Your task to perform on an android device: install app "Paramount+ | Peak Streaming" Image 0: 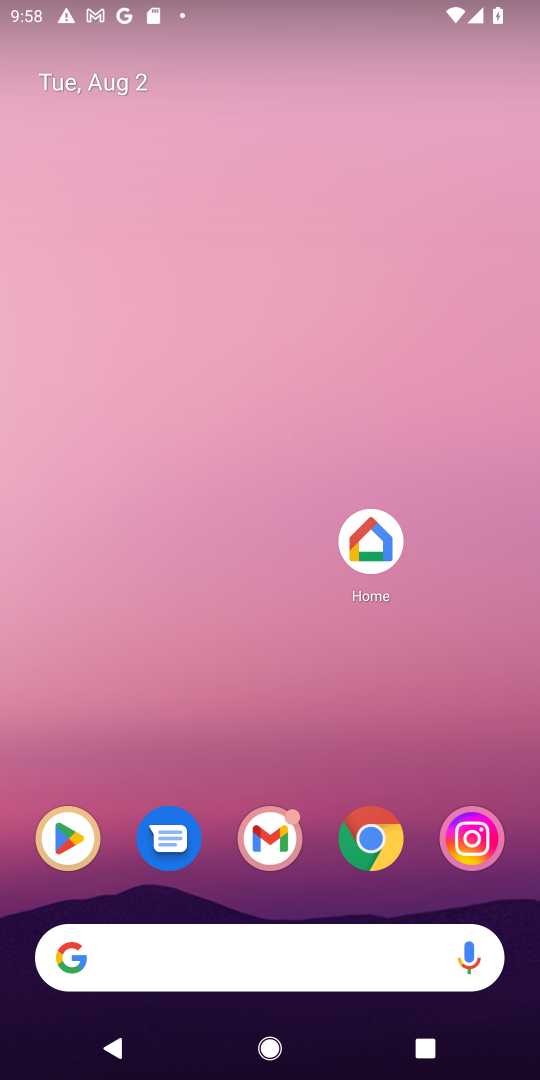
Step 0: press home button
Your task to perform on an android device: install app "Paramount+ | Peak Streaming" Image 1: 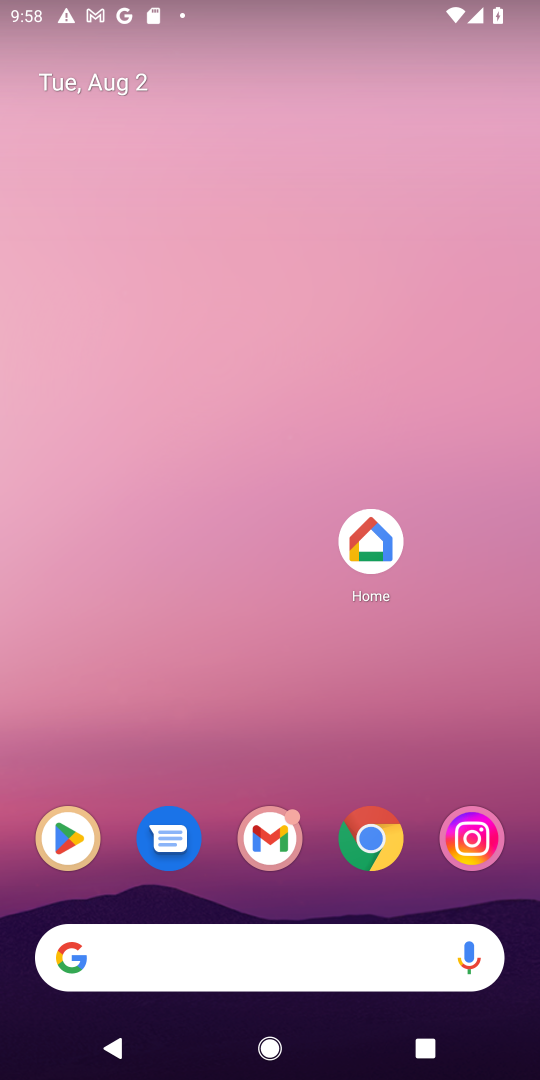
Step 1: drag from (219, 657) to (257, 42)
Your task to perform on an android device: install app "Paramount+ | Peak Streaming" Image 2: 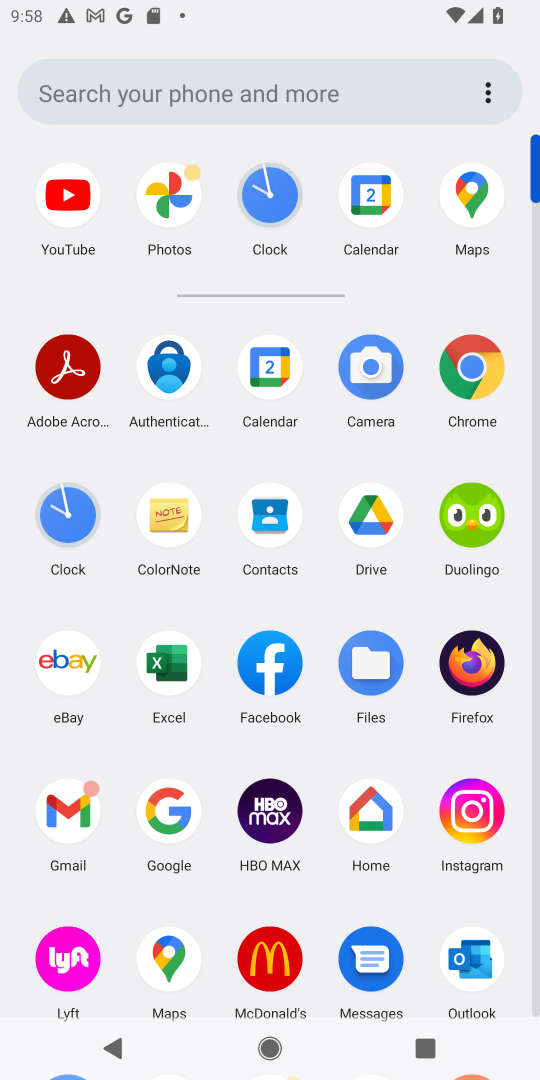
Step 2: drag from (315, 894) to (317, 375)
Your task to perform on an android device: install app "Paramount+ | Peak Streaming" Image 3: 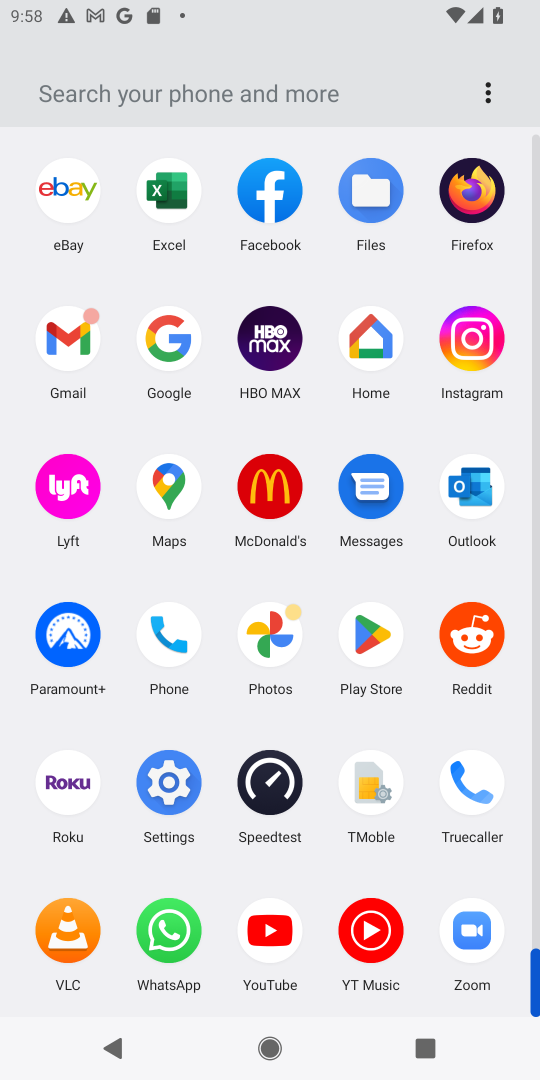
Step 3: click (383, 634)
Your task to perform on an android device: install app "Paramount+ | Peak Streaming" Image 4: 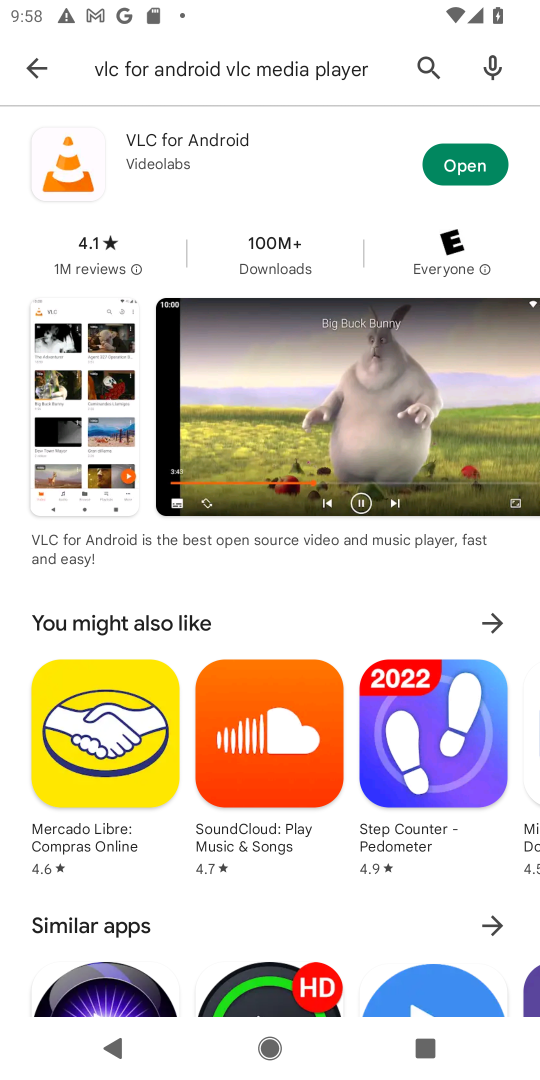
Step 4: click (421, 57)
Your task to perform on an android device: install app "Paramount+ | Peak Streaming" Image 5: 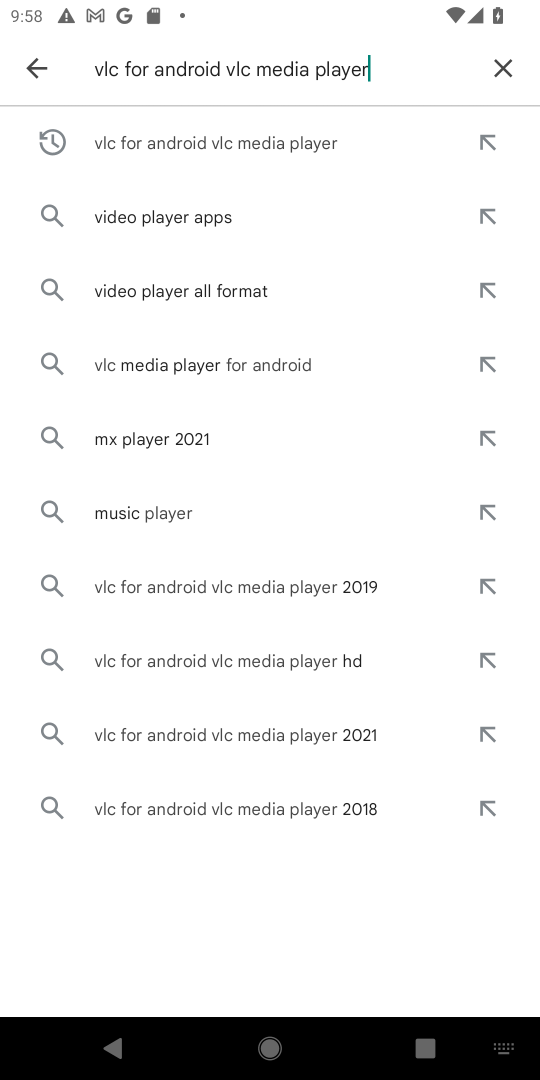
Step 5: click (506, 59)
Your task to perform on an android device: install app "Paramount+ | Peak Streaming" Image 6: 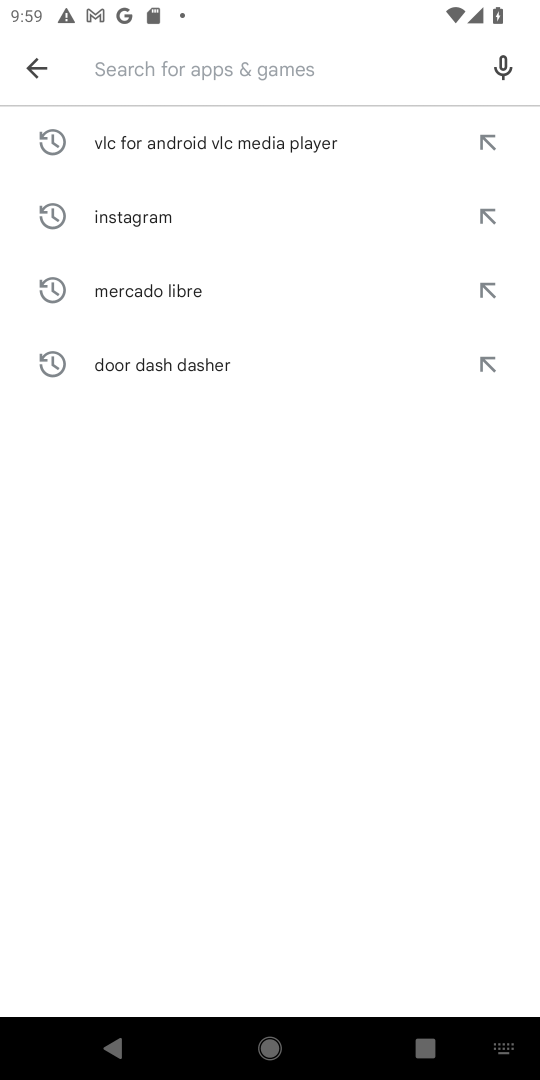
Step 6: type "Paramount+ | Peak Streaming"
Your task to perform on an android device: install app "Paramount+ | Peak Streaming" Image 7: 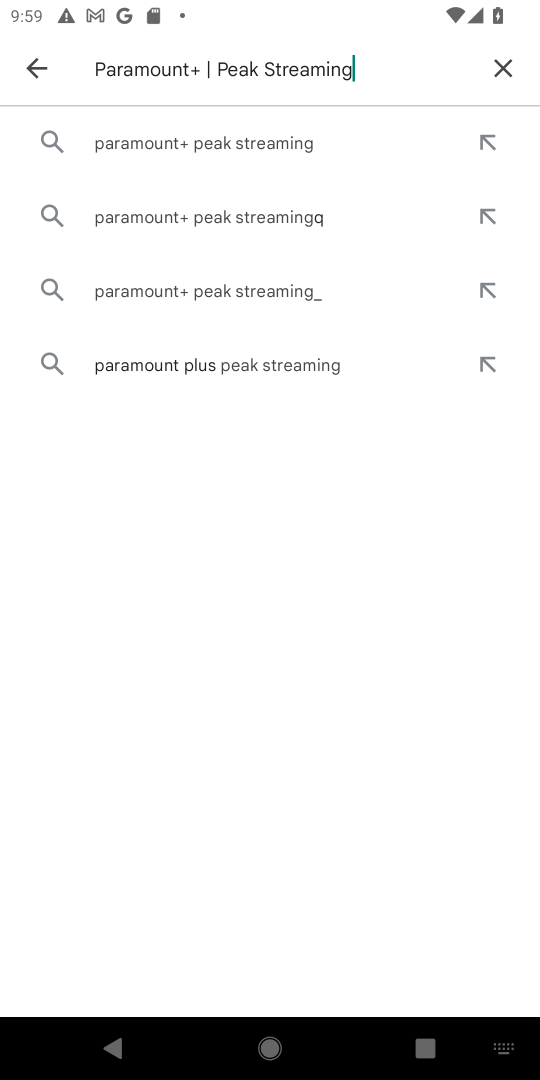
Step 7: click (300, 145)
Your task to perform on an android device: install app "Paramount+ | Peak Streaming" Image 8: 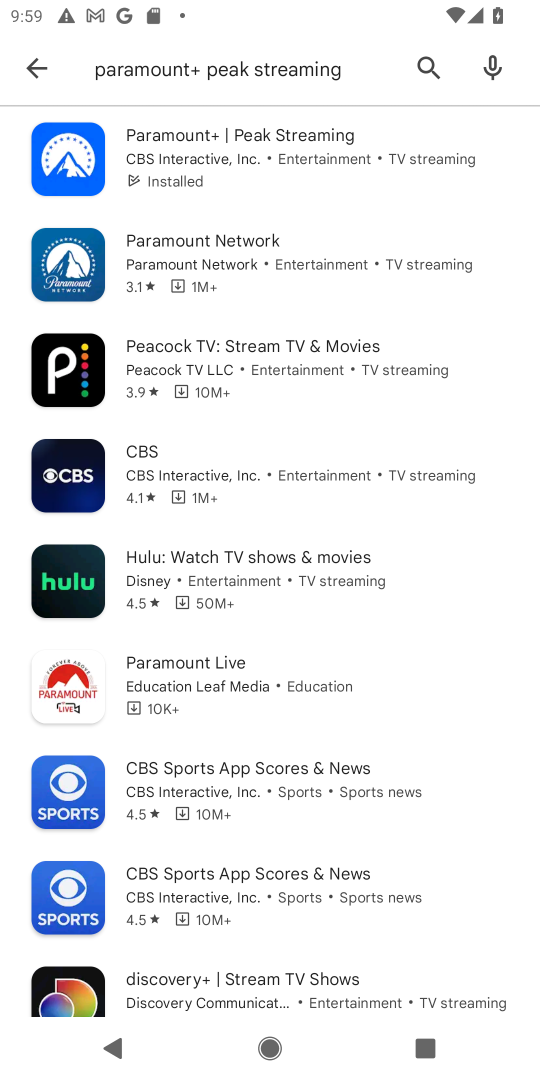
Step 8: task complete